Your task to perform on an android device: toggle translation in the chrome app Image 0: 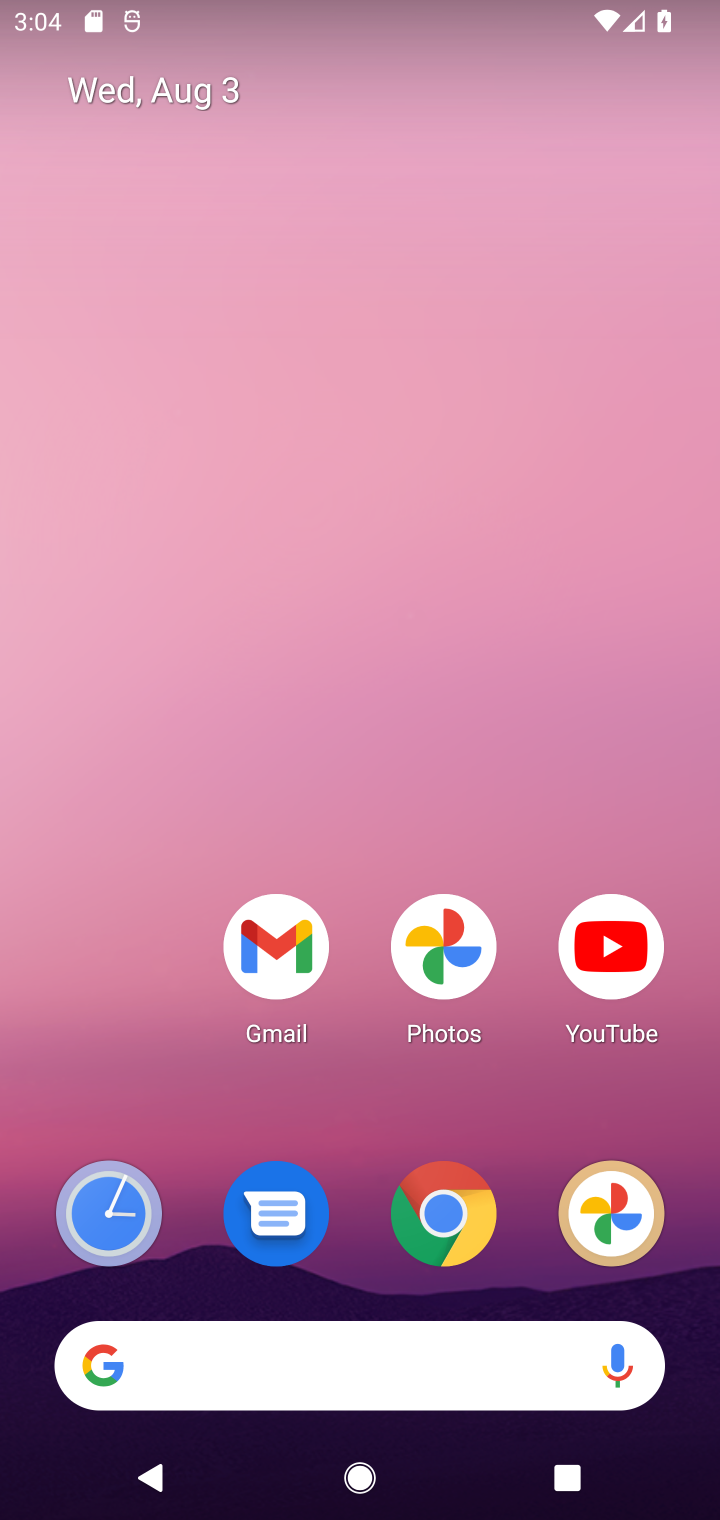
Step 0: drag from (370, 1055) to (410, 251)
Your task to perform on an android device: toggle translation in the chrome app Image 1: 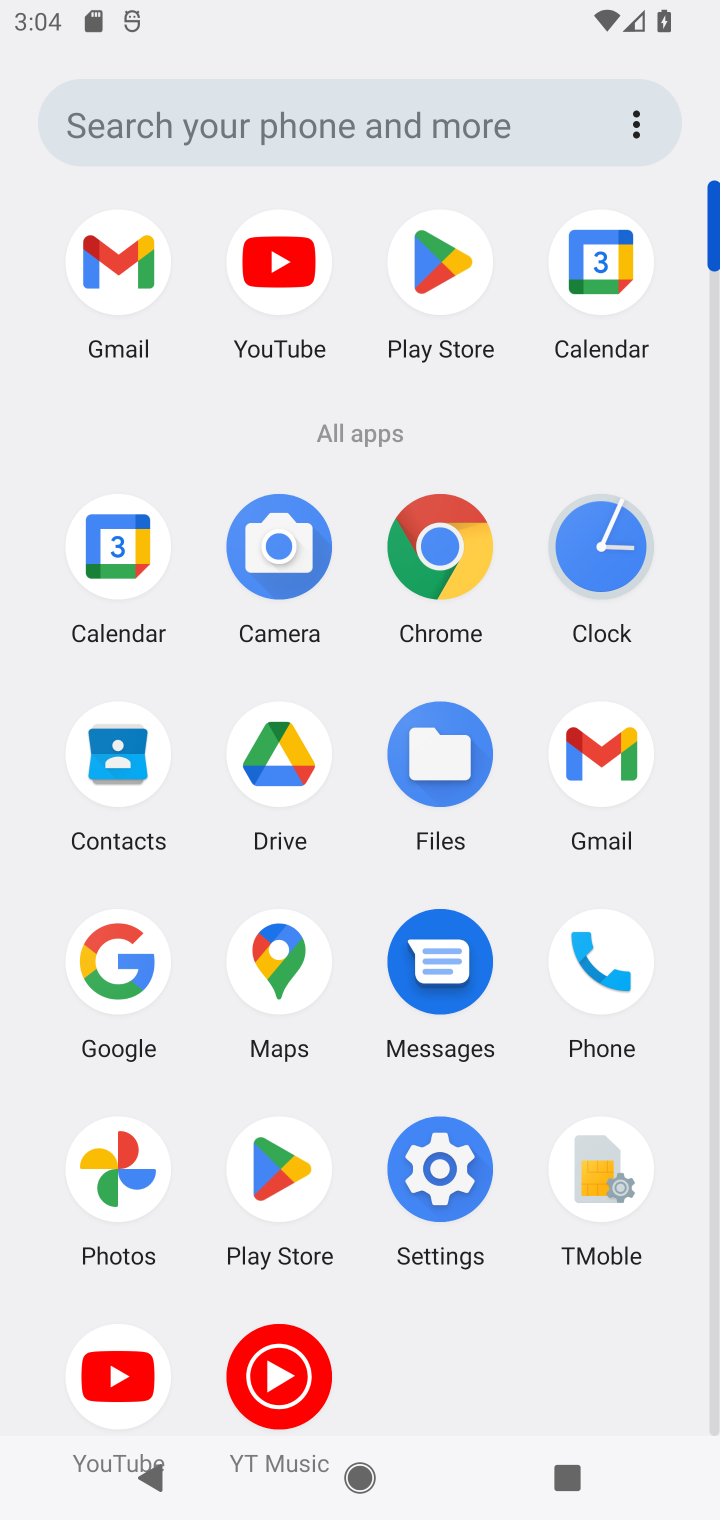
Step 1: click (439, 574)
Your task to perform on an android device: toggle translation in the chrome app Image 2: 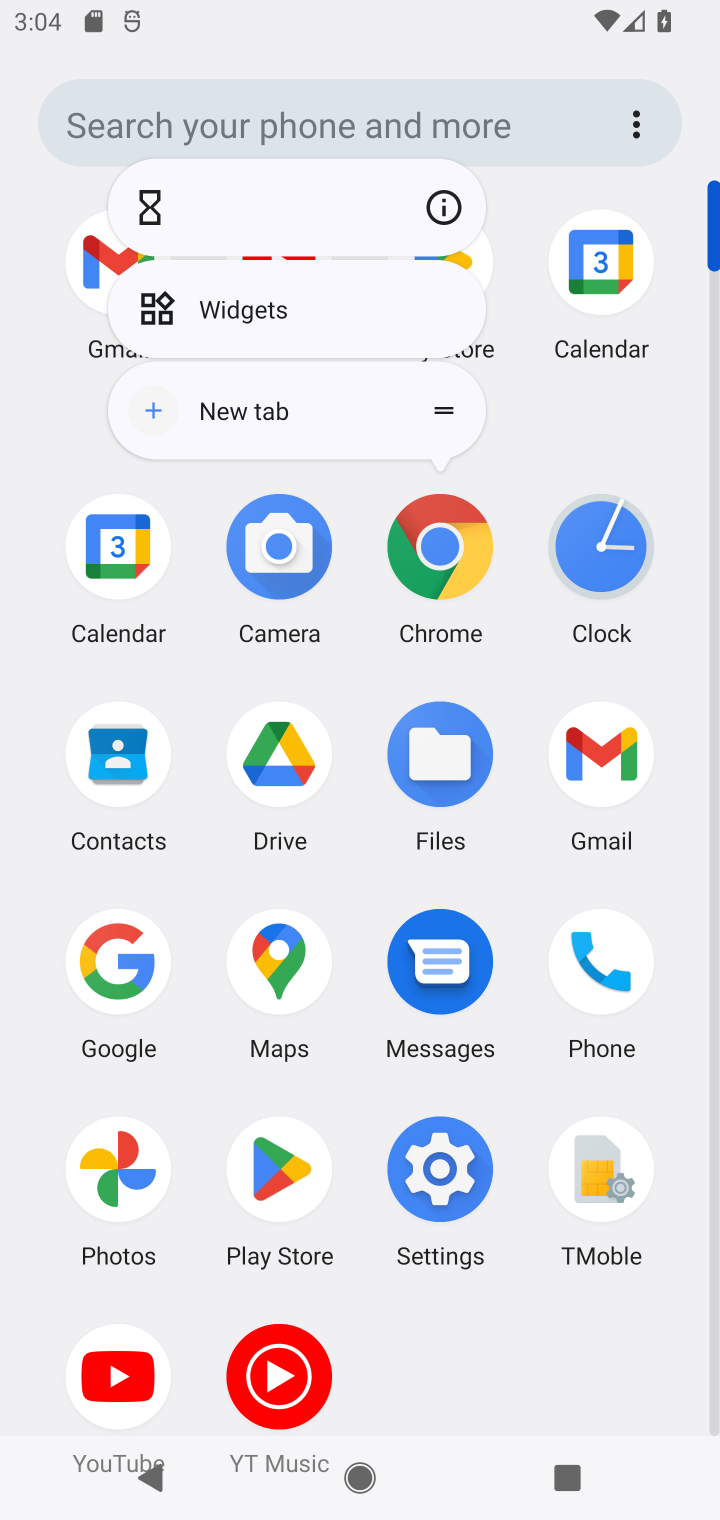
Step 2: click (443, 558)
Your task to perform on an android device: toggle translation in the chrome app Image 3: 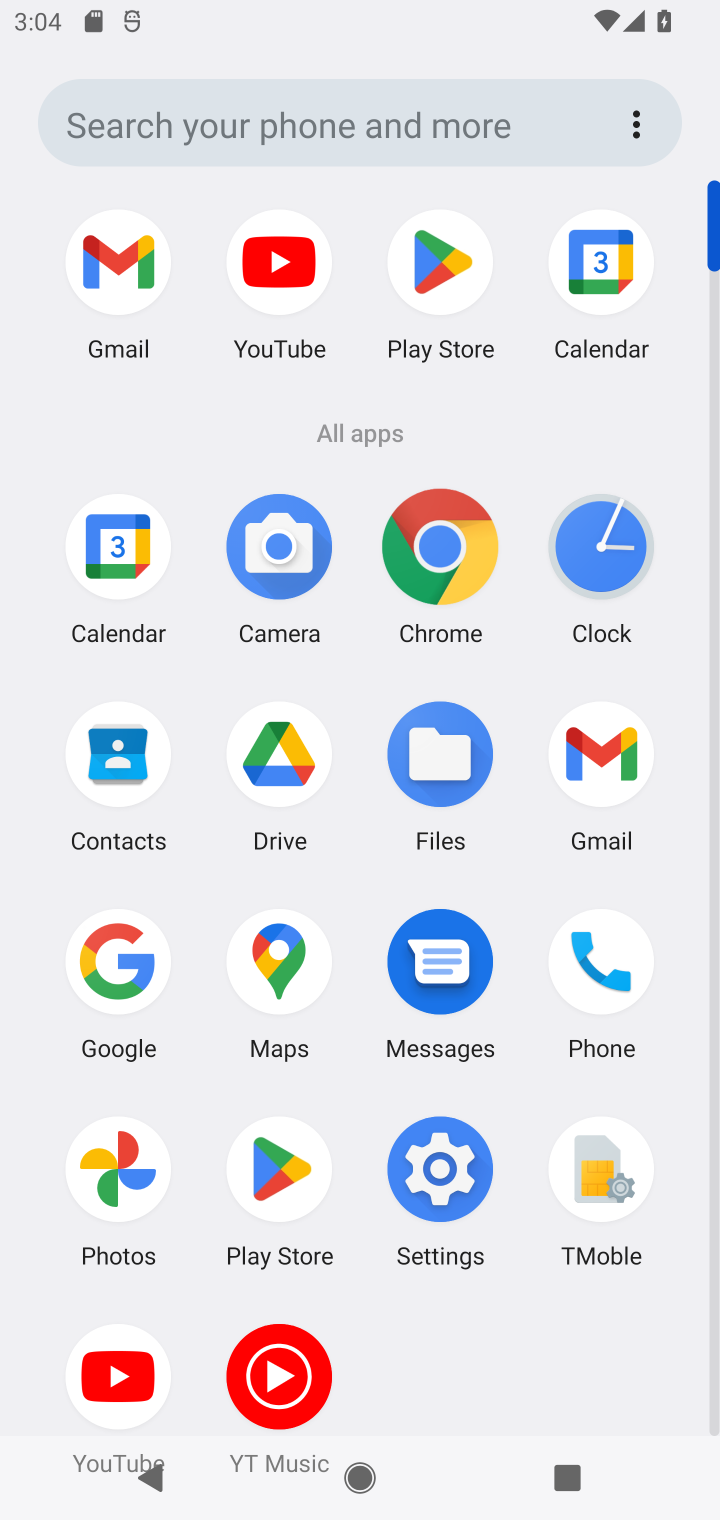
Step 3: click (443, 538)
Your task to perform on an android device: toggle translation in the chrome app Image 4: 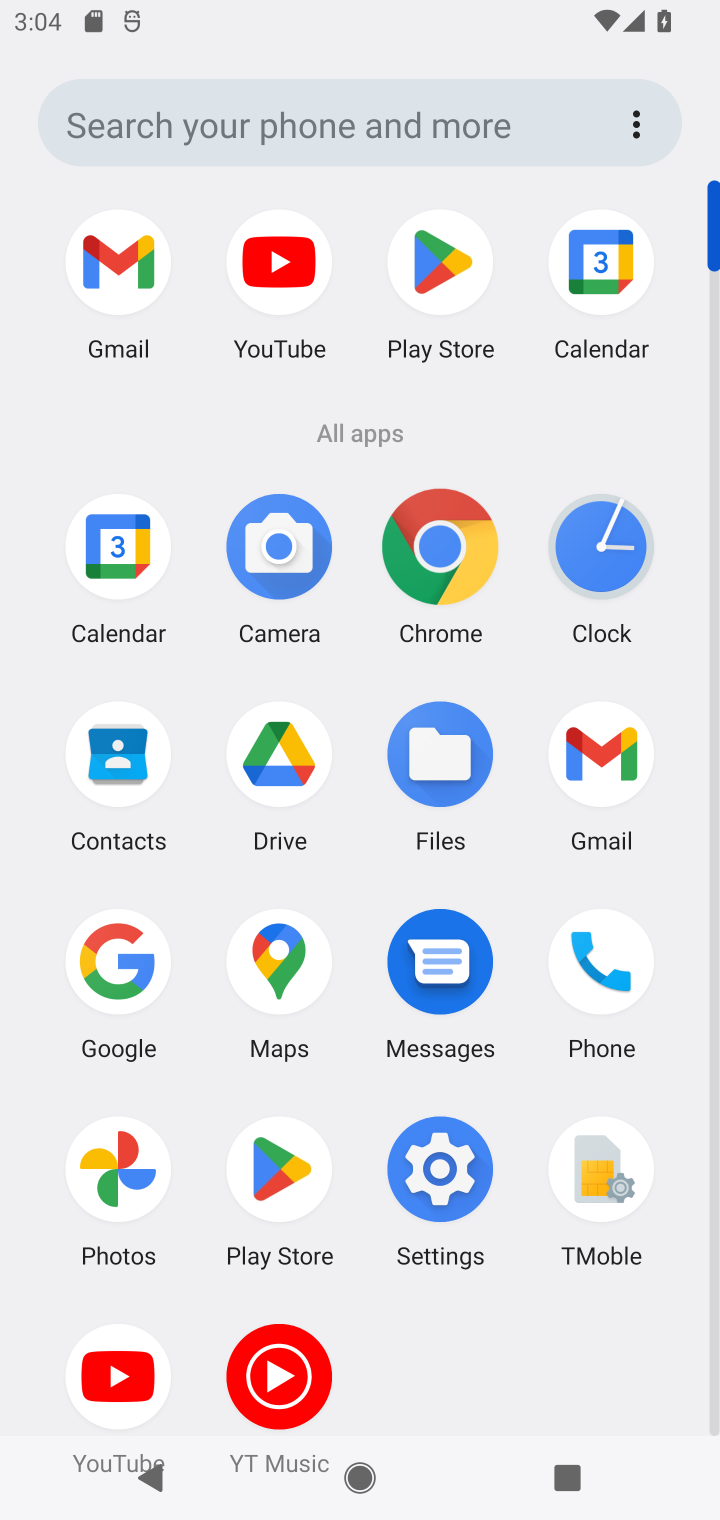
Step 4: click (418, 546)
Your task to perform on an android device: toggle translation in the chrome app Image 5: 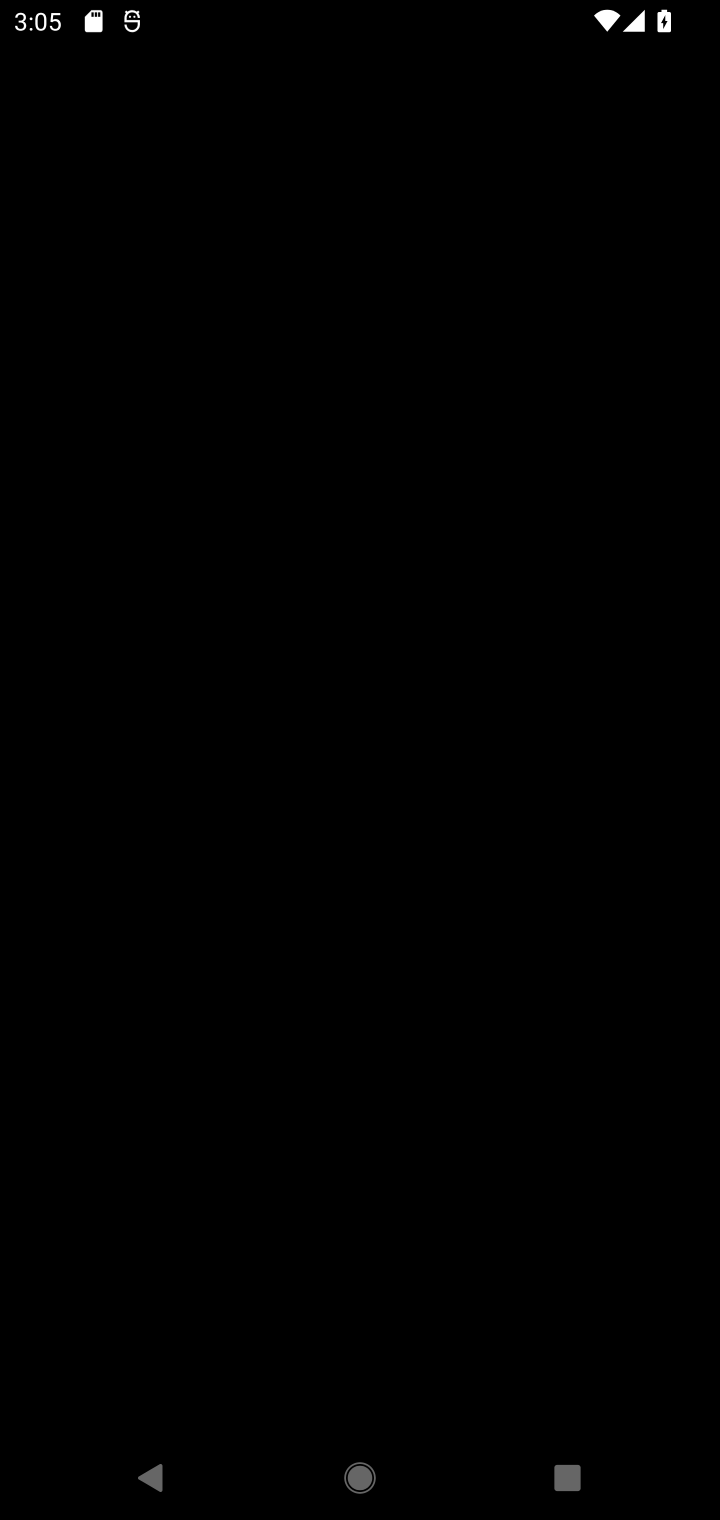
Step 5: task complete